Your task to perform on an android device: Search for sushi restaurants on Maps Image 0: 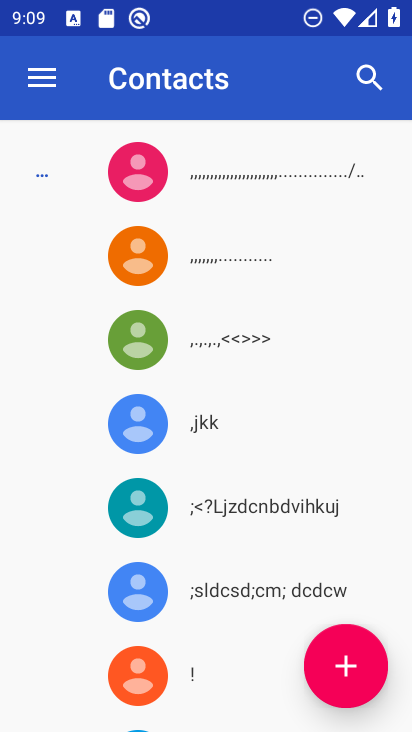
Step 0: press home button
Your task to perform on an android device: Search for sushi restaurants on Maps Image 1: 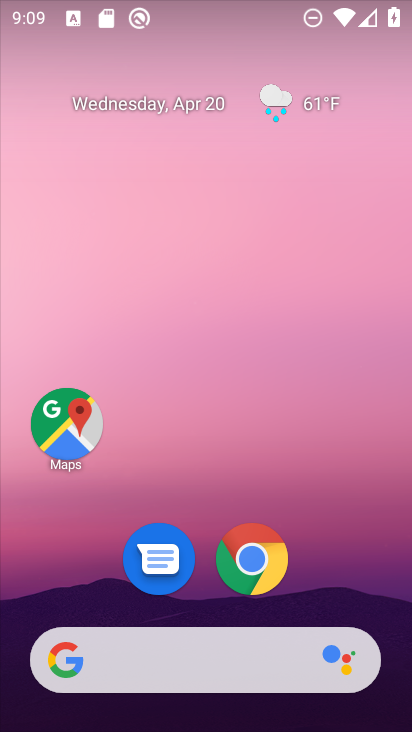
Step 1: click (69, 420)
Your task to perform on an android device: Search for sushi restaurants on Maps Image 2: 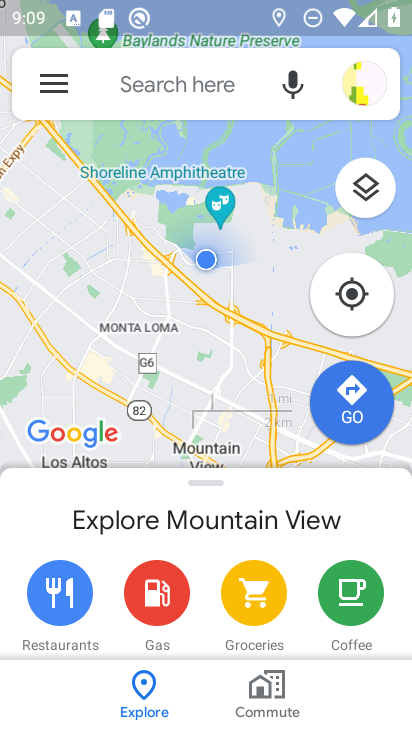
Step 2: click (150, 84)
Your task to perform on an android device: Search for sushi restaurants on Maps Image 3: 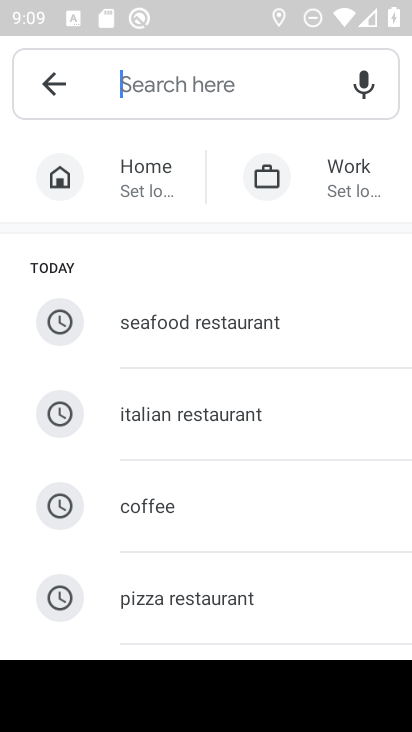
Step 3: type "sushi restaurants"
Your task to perform on an android device: Search for sushi restaurants on Maps Image 4: 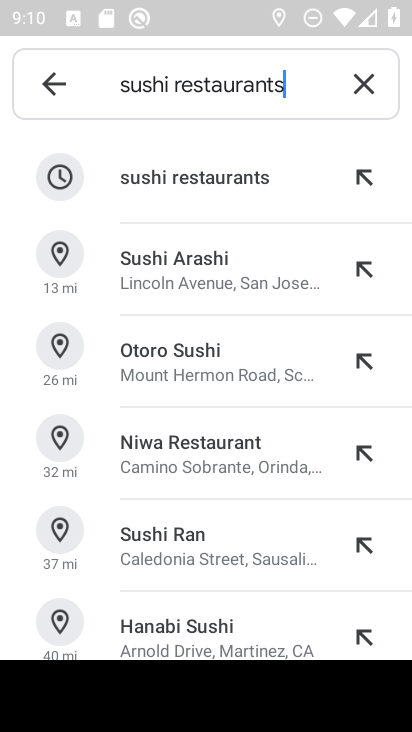
Step 4: click (174, 174)
Your task to perform on an android device: Search for sushi restaurants on Maps Image 5: 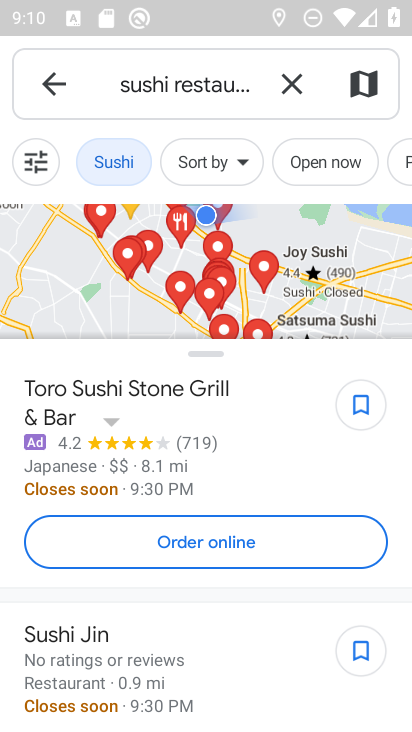
Step 5: task complete